Your task to perform on an android device: toggle pop-ups in chrome Image 0: 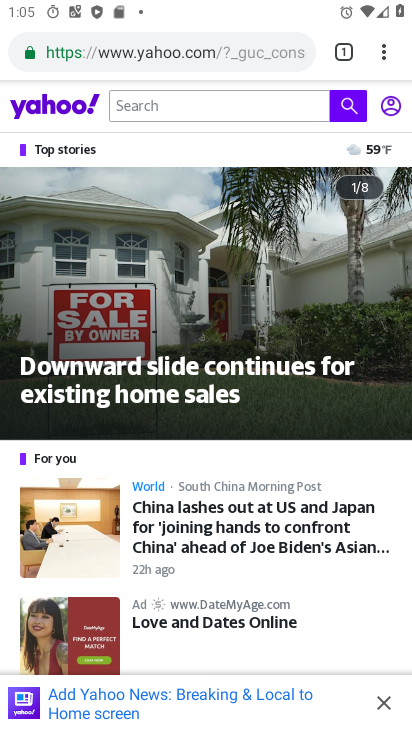
Step 0: press home button
Your task to perform on an android device: toggle pop-ups in chrome Image 1: 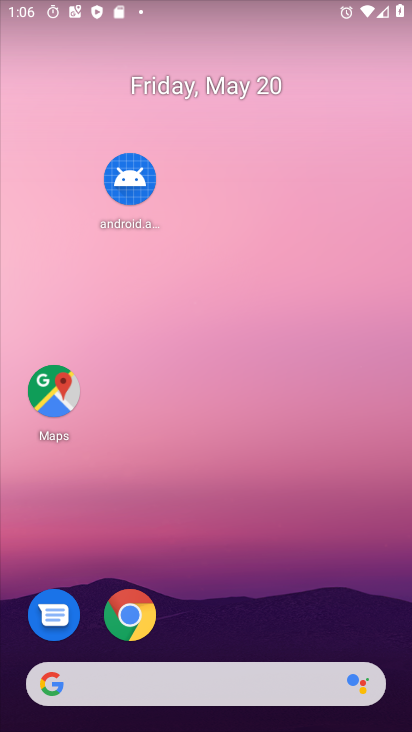
Step 1: click (117, 619)
Your task to perform on an android device: toggle pop-ups in chrome Image 2: 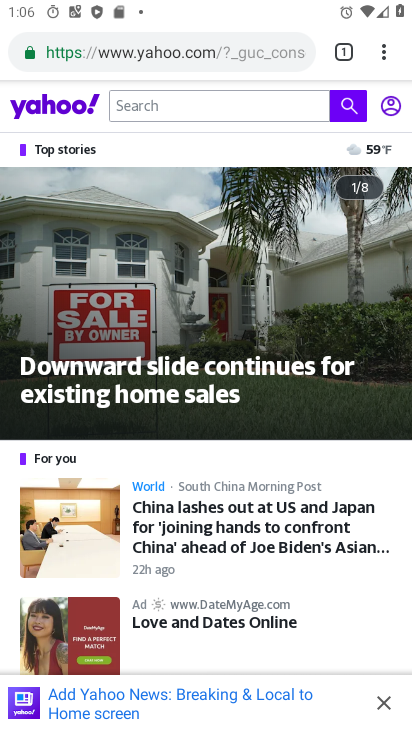
Step 2: click (384, 41)
Your task to perform on an android device: toggle pop-ups in chrome Image 3: 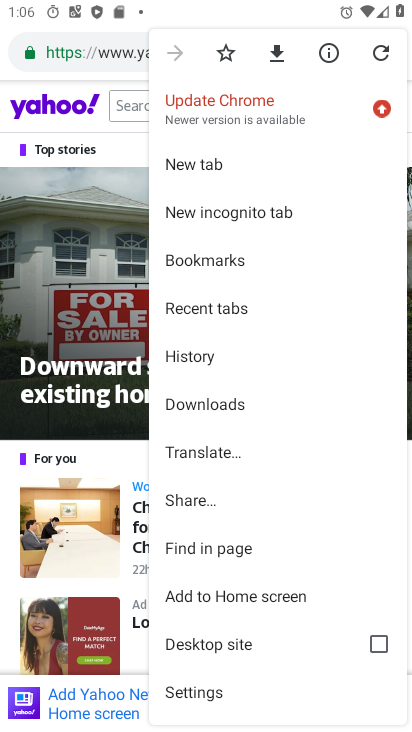
Step 3: click (217, 692)
Your task to perform on an android device: toggle pop-ups in chrome Image 4: 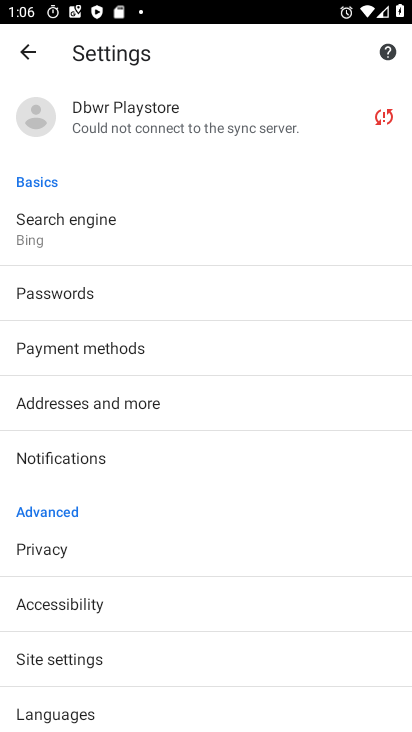
Step 4: click (109, 647)
Your task to perform on an android device: toggle pop-ups in chrome Image 5: 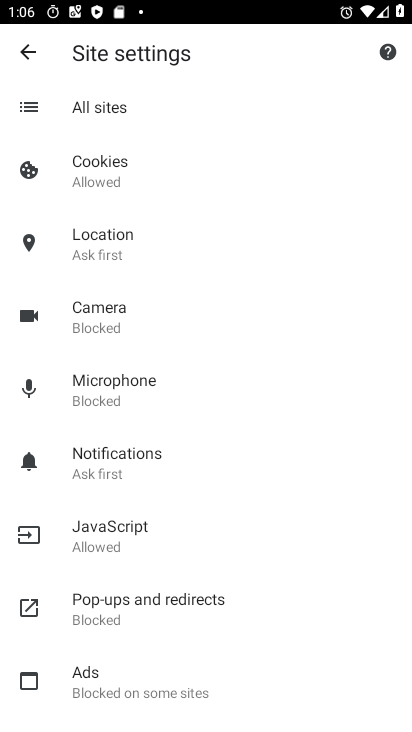
Step 5: click (141, 602)
Your task to perform on an android device: toggle pop-ups in chrome Image 6: 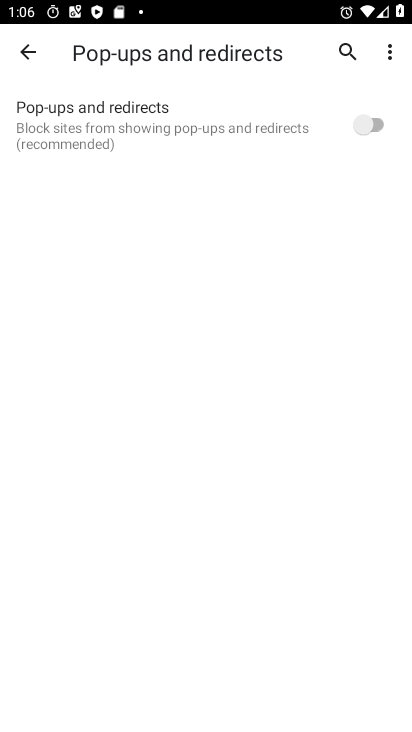
Step 6: click (358, 124)
Your task to perform on an android device: toggle pop-ups in chrome Image 7: 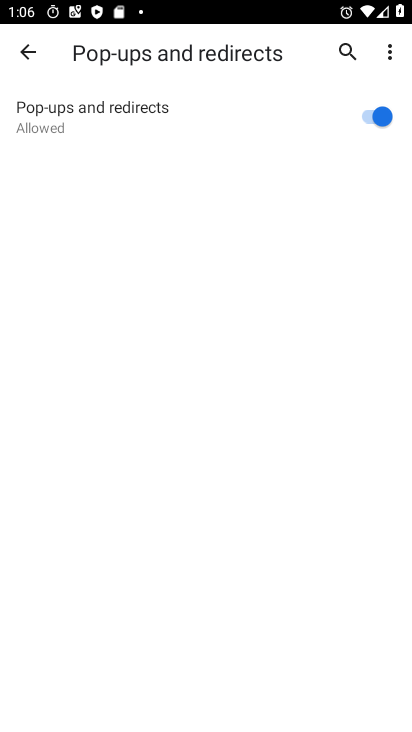
Step 7: task complete